Your task to perform on an android device: Open calendar and show me the fourth week of next month Image 0: 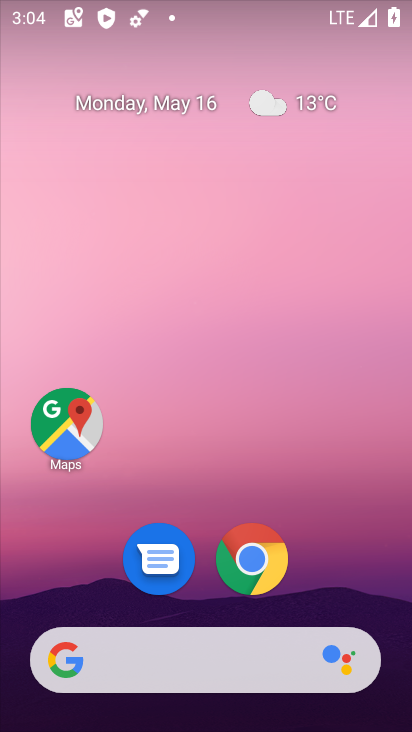
Step 0: drag from (233, 577) to (271, 28)
Your task to perform on an android device: Open calendar and show me the fourth week of next month Image 1: 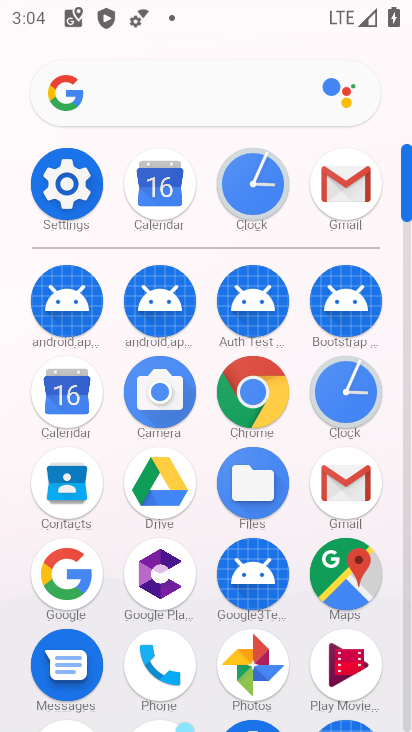
Step 1: click (43, 173)
Your task to perform on an android device: Open calendar and show me the fourth week of next month Image 2: 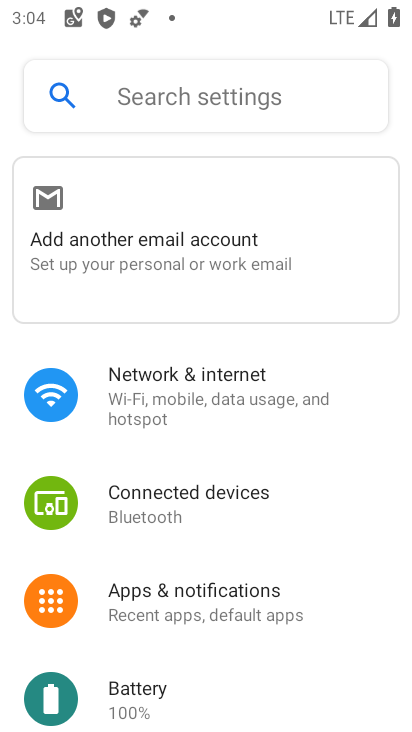
Step 2: press back button
Your task to perform on an android device: Open calendar and show me the fourth week of next month Image 3: 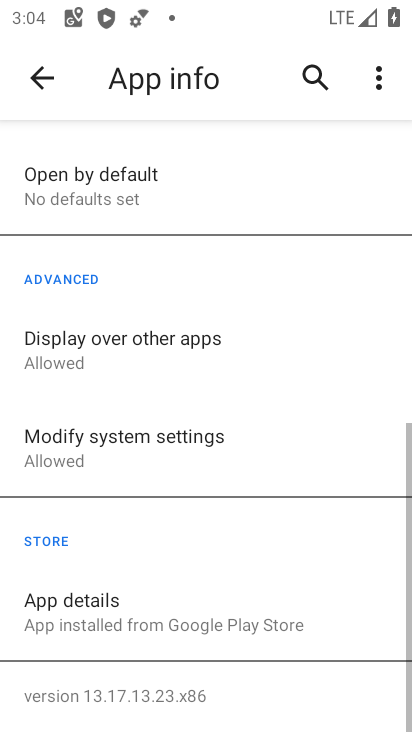
Step 3: press back button
Your task to perform on an android device: Open calendar and show me the fourth week of next month Image 4: 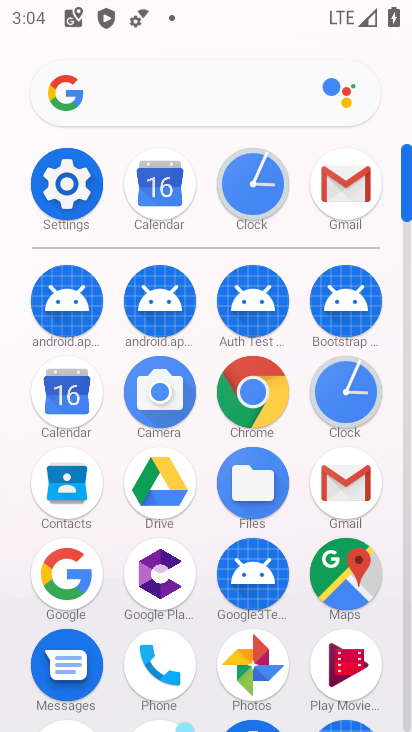
Step 4: click (67, 385)
Your task to perform on an android device: Open calendar and show me the fourth week of next month Image 5: 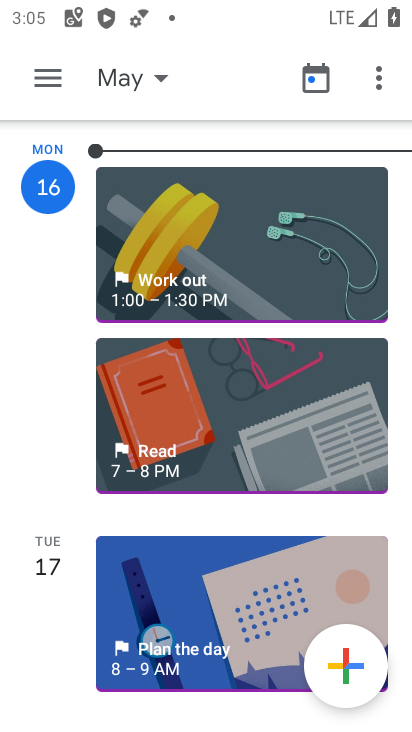
Step 5: click (144, 82)
Your task to perform on an android device: Open calendar and show me the fourth week of next month Image 6: 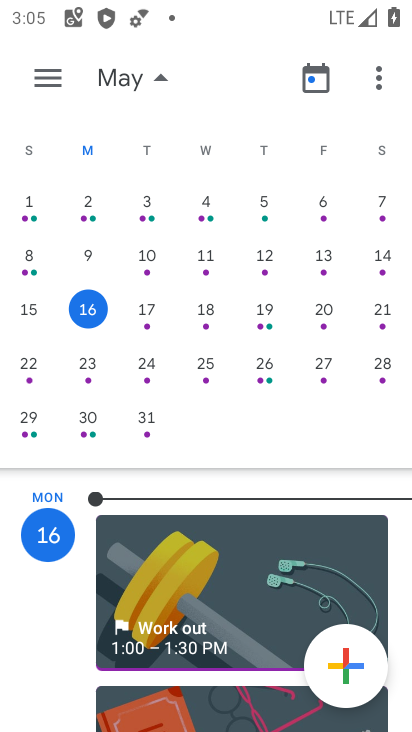
Step 6: drag from (346, 278) to (8, 259)
Your task to perform on an android device: Open calendar and show me the fourth week of next month Image 7: 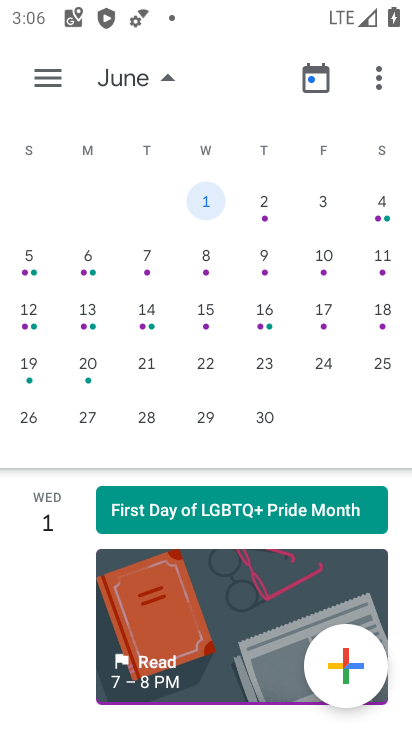
Step 7: click (377, 283)
Your task to perform on an android device: Open calendar and show me the fourth week of next month Image 8: 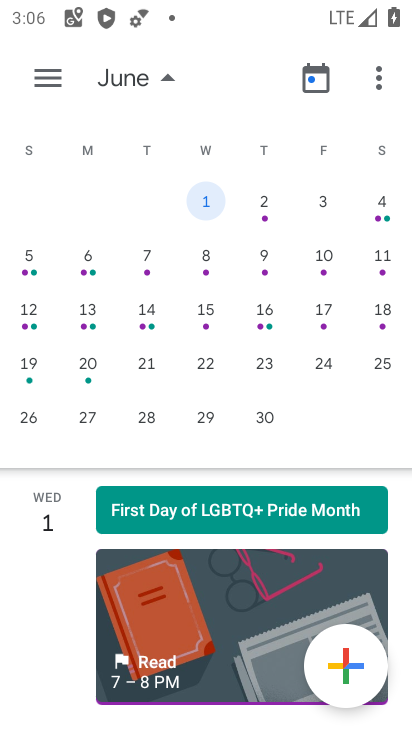
Step 8: click (79, 361)
Your task to perform on an android device: Open calendar and show me the fourth week of next month Image 9: 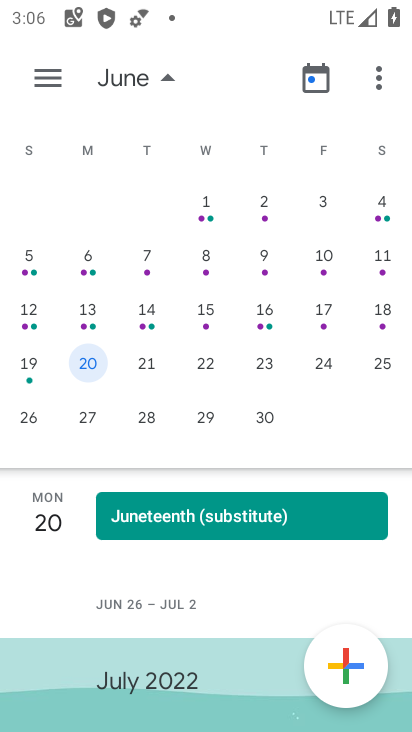
Step 9: task complete